Your task to perform on an android device: Open battery settings Image 0: 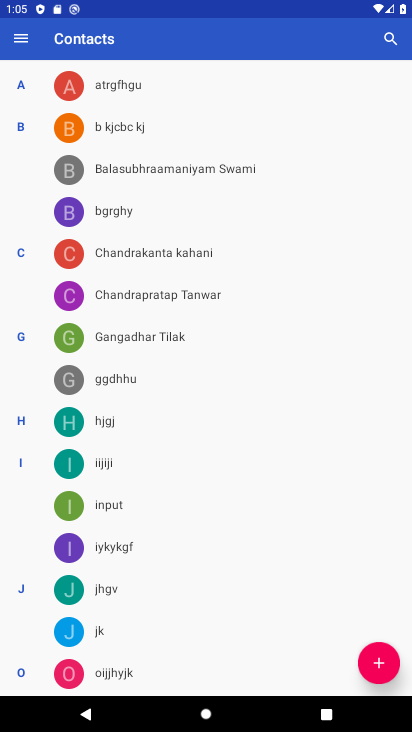
Step 0: press home button
Your task to perform on an android device: Open battery settings Image 1: 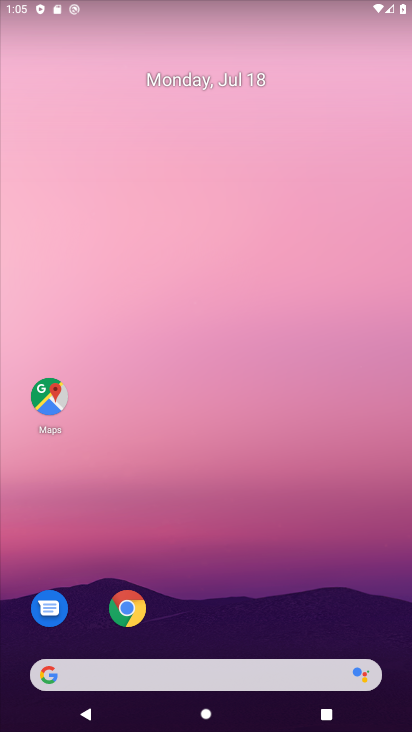
Step 1: drag from (232, 718) to (238, 26)
Your task to perform on an android device: Open battery settings Image 2: 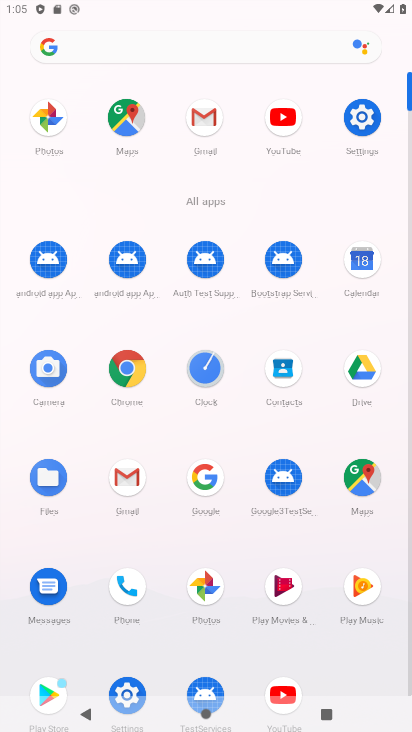
Step 2: click (356, 121)
Your task to perform on an android device: Open battery settings Image 3: 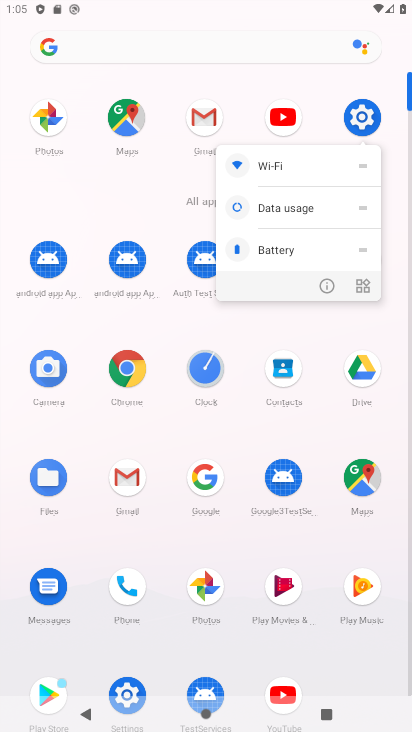
Step 3: click (356, 121)
Your task to perform on an android device: Open battery settings Image 4: 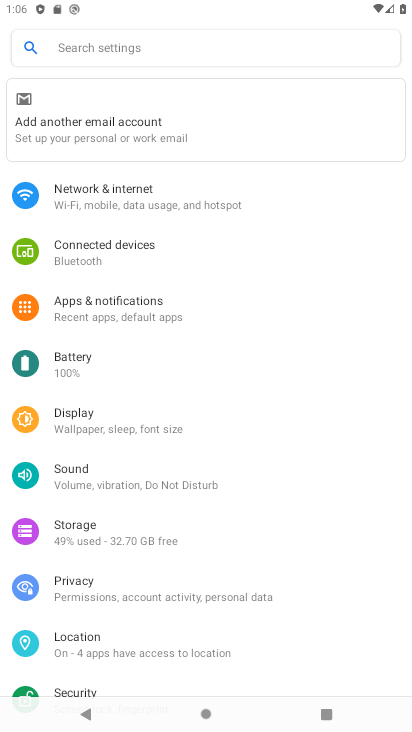
Step 4: click (75, 364)
Your task to perform on an android device: Open battery settings Image 5: 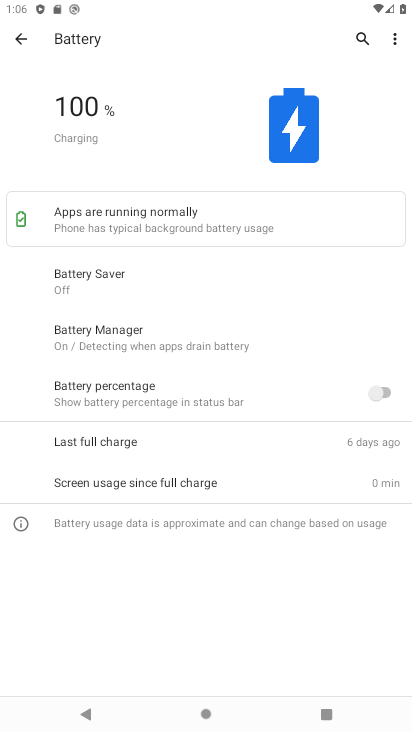
Step 5: task complete